Your task to perform on an android device: Open calendar and show me the fourth week of next month Image 0: 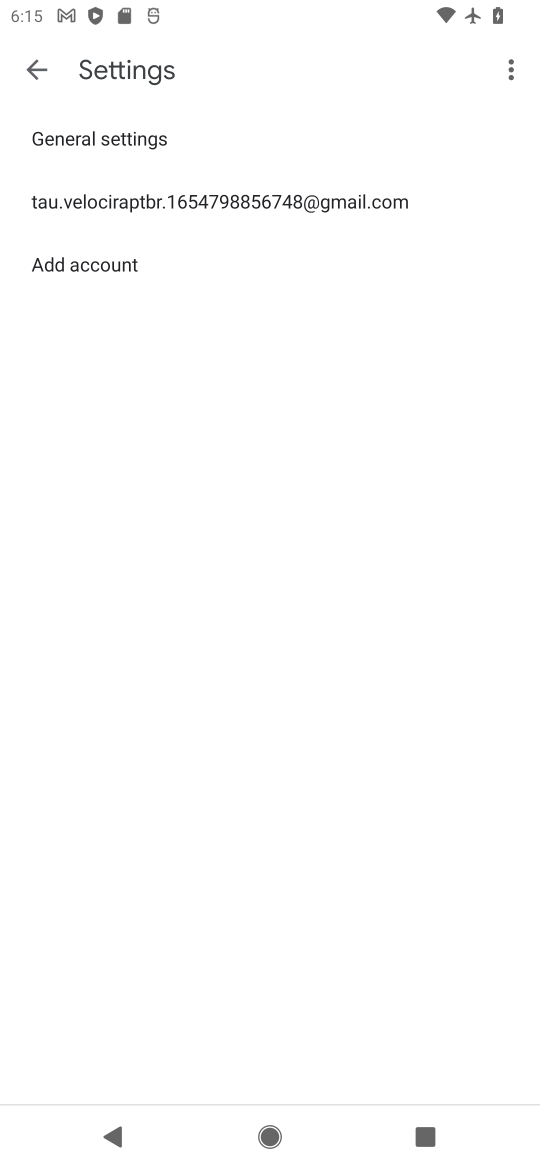
Step 0: press home button
Your task to perform on an android device: Open calendar and show me the fourth week of next month Image 1: 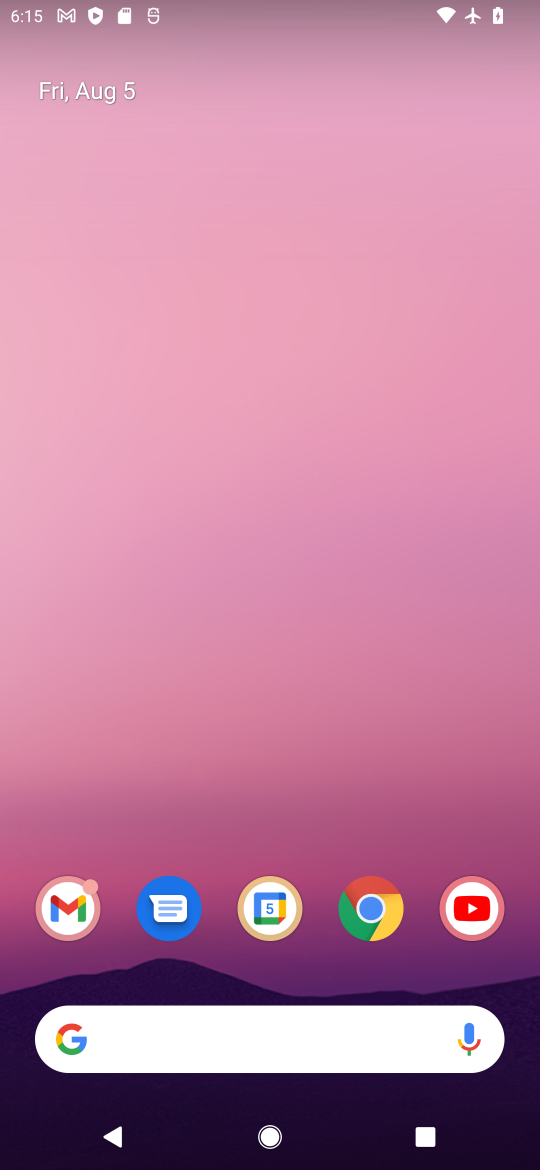
Step 1: drag from (258, 556) to (302, 127)
Your task to perform on an android device: Open calendar and show me the fourth week of next month Image 2: 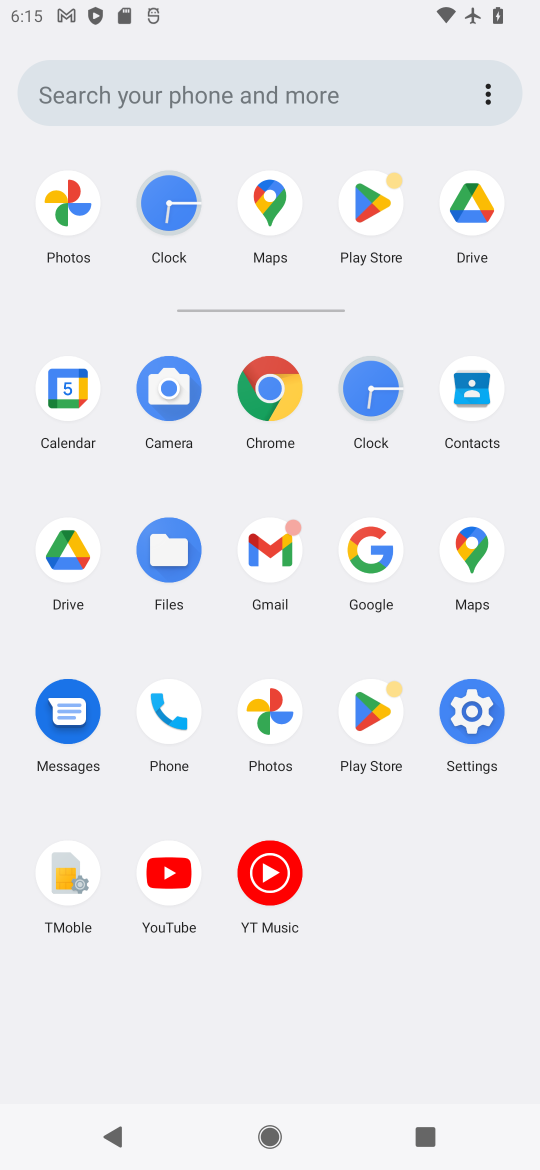
Step 2: click (64, 419)
Your task to perform on an android device: Open calendar and show me the fourth week of next month Image 3: 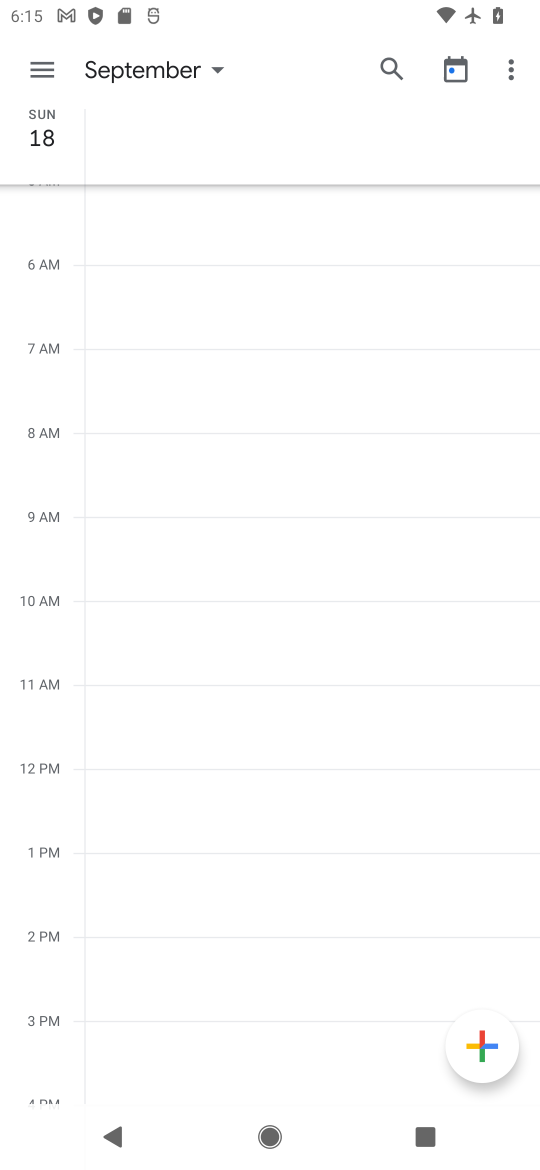
Step 3: click (41, 75)
Your task to perform on an android device: Open calendar and show me the fourth week of next month Image 4: 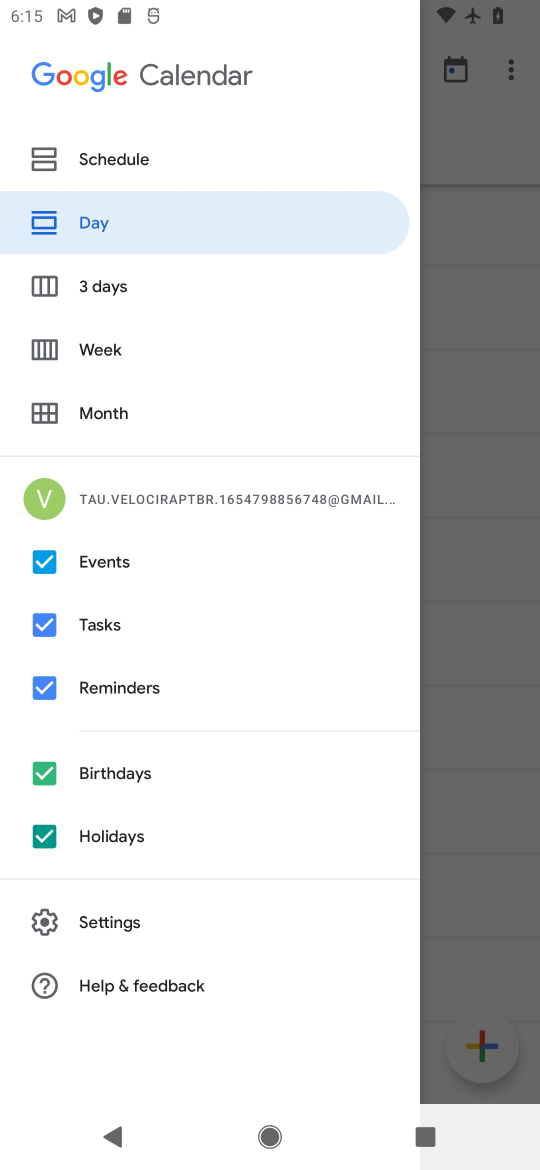
Step 4: click (108, 353)
Your task to perform on an android device: Open calendar and show me the fourth week of next month Image 5: 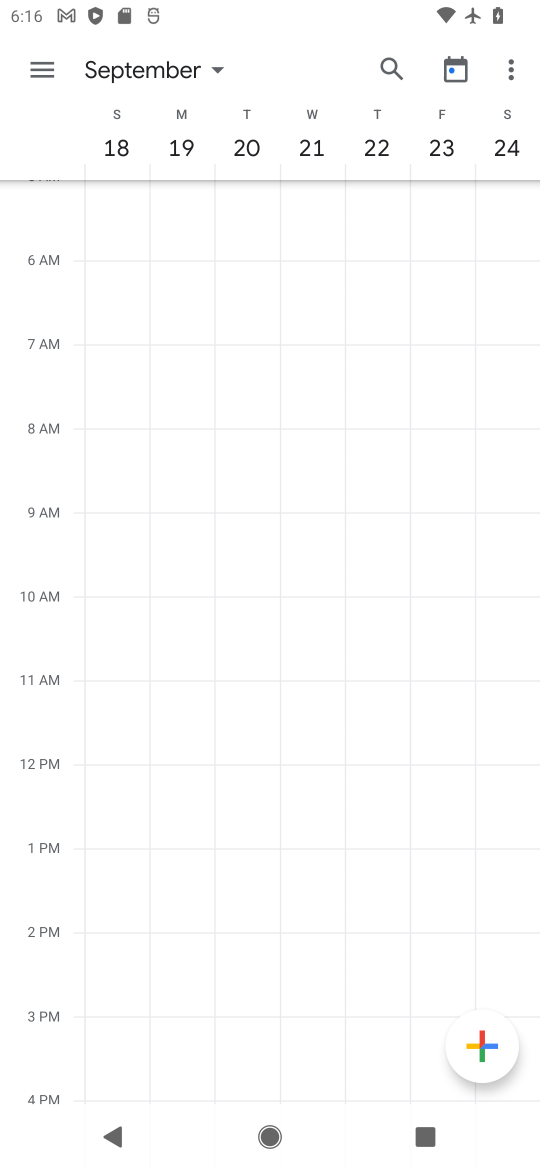
Step 5: click (158, 66)
Your task to perform on an android device: Open calendar and show me the fourth week of next month Image 6: 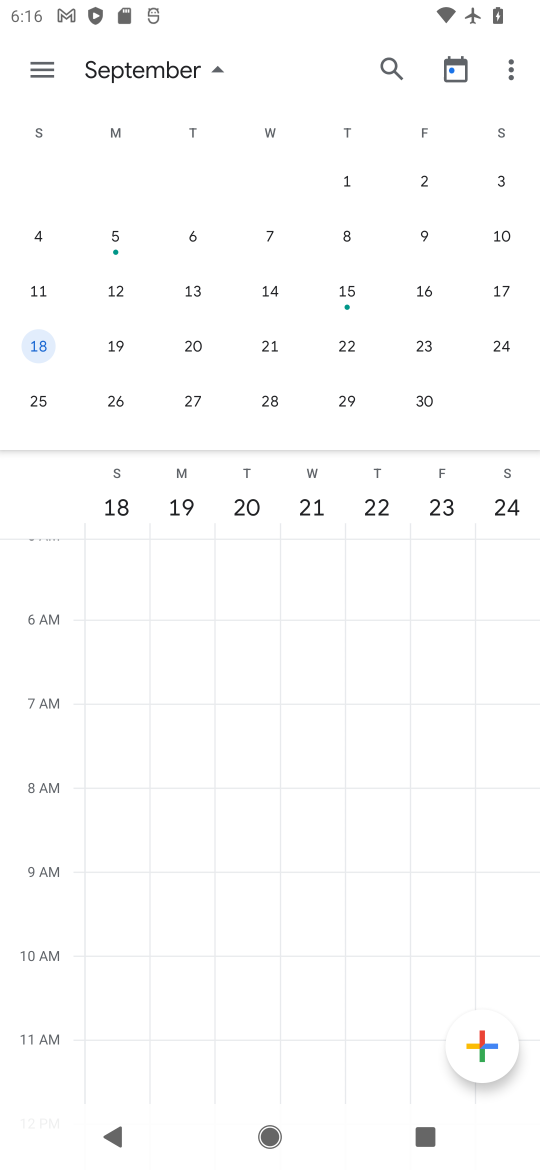
Step 6: task complete